Your task to perform on an android device: empty trash in google photos Image 0: 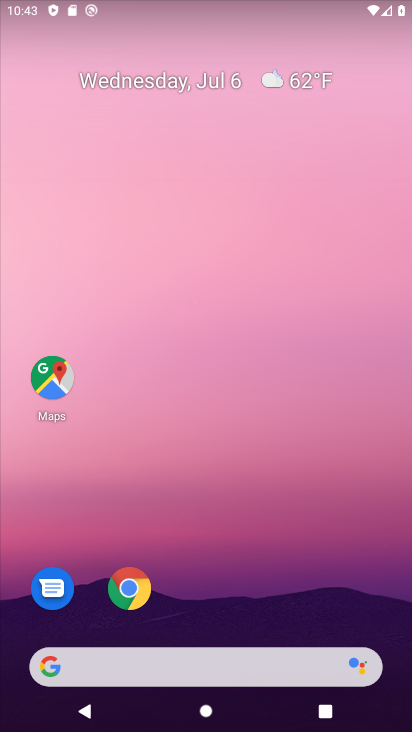
Step 0: drag from (381, 623) to (342, 78)
Your task to perform on an android device: empty trash in google photos Image 1: 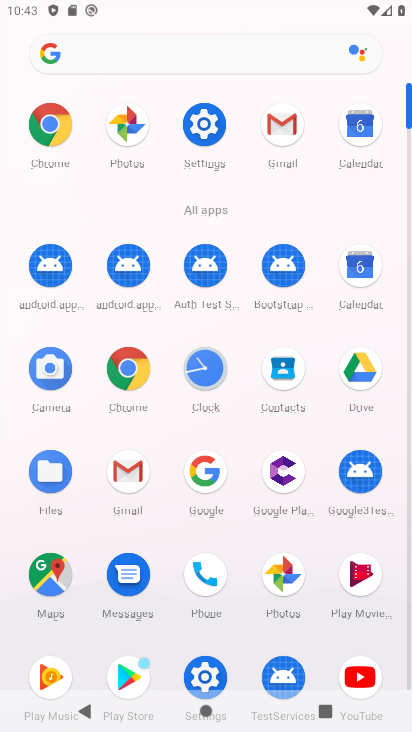
Step 1: click (282, 575)
Your task to perform on an android device: empty trash in google photos Image 2: 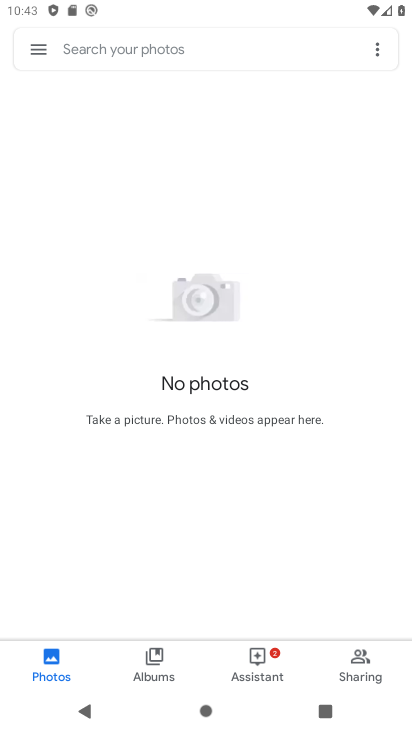
Step 2: click (38, 50)
Your task to perform on an android device: empty trash in google photos Image 3: 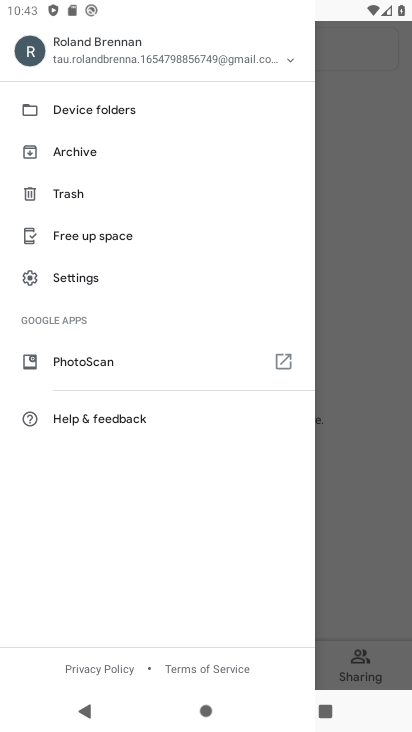
Step 3: click (66, 192)
Your task to perform on an android device: empty trash in google photos Image 4: 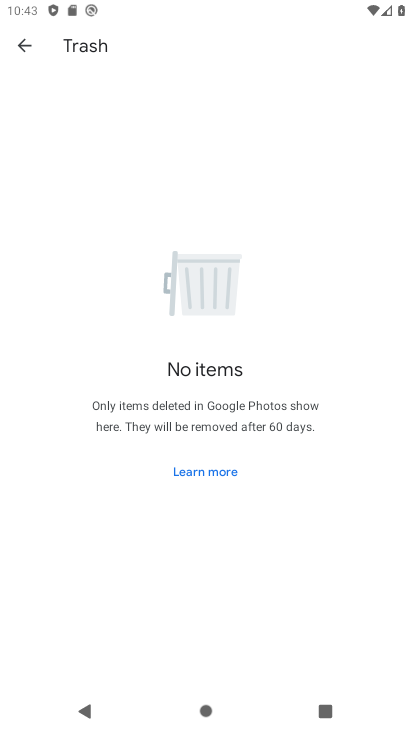
Step 4: task complete